Your task to perform on an android device: Turn off the flashlight Image 0: 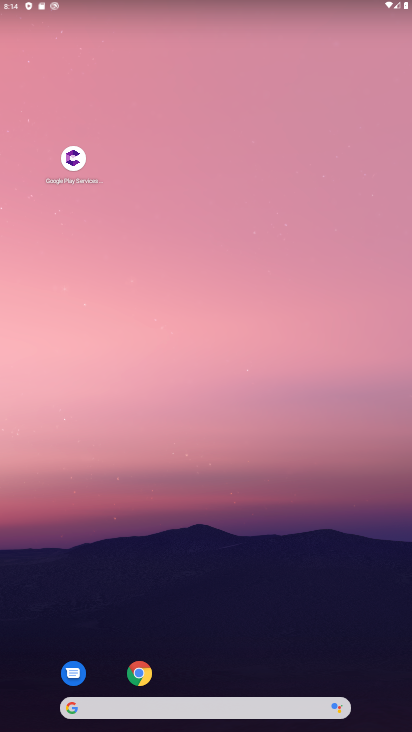
Step 0: drag from (257, 722) to (387, 184)
Your task to perform on an android device: Turn off the flashlight Image 1: 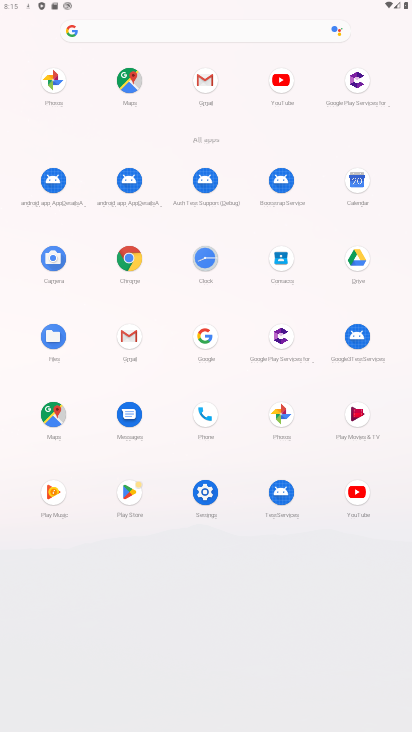
Step 1: click (205, 495)
Your task to perform on an android device: Turn off the flashlight Image 2: 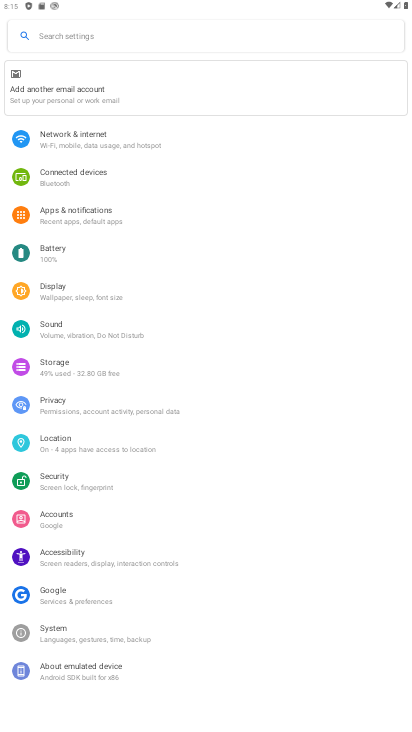
Step 2: task complete